Your task to perform on an android device: Open battery settings Image 0: 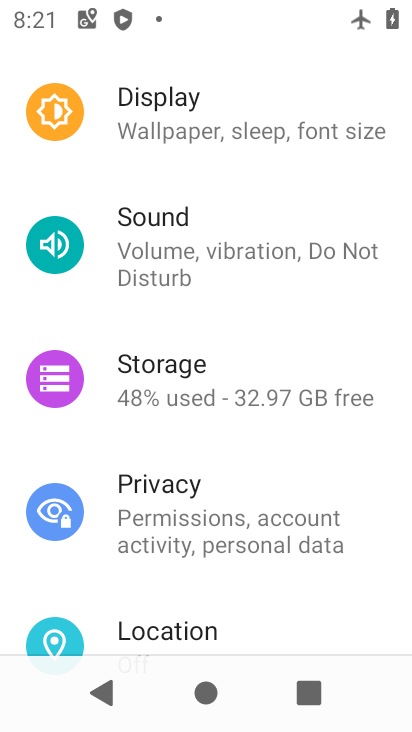
Step 0: drag from (230, 621) to (260, 113)
Your task to perform on an android device: Open battery settings Image 1: 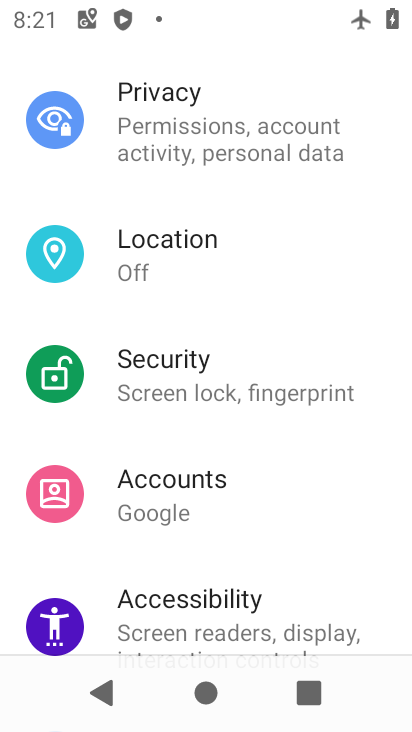
Step 1: drag from (207, 589) to (259, 15)
Your task to perform on an android device: Open battery settings Image 2: 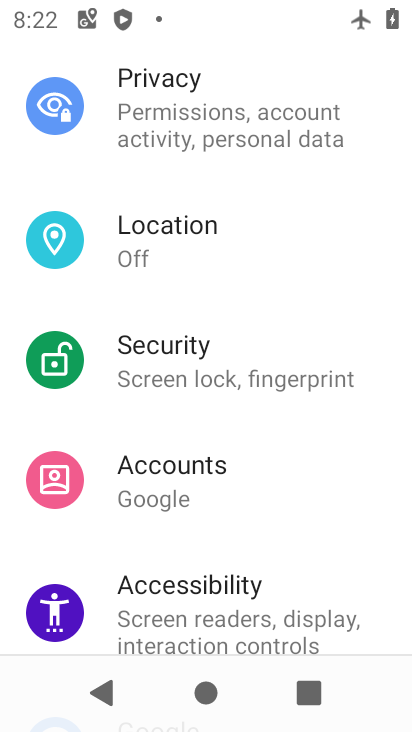
Step 2: drag from (152, 553) to (267, 0)
Your task to perform on an android device: Open battery settings Image 3: 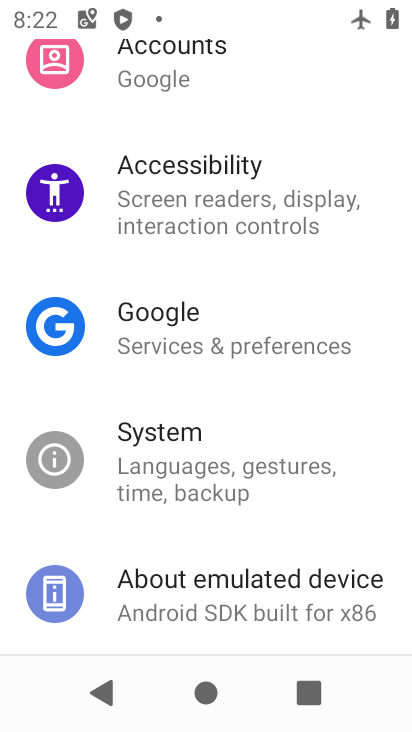
Step 3: drag from (335, 89) to (352, 618)
Your task to perform on an android device: Open battery settings Image 4: 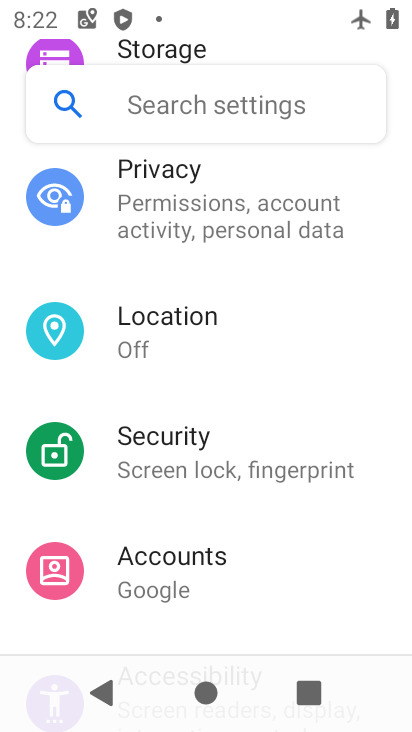
Step 4: drag from (202, 270) to (217, 644)
Your task to perform on an android device: Open battery settings Image 5: 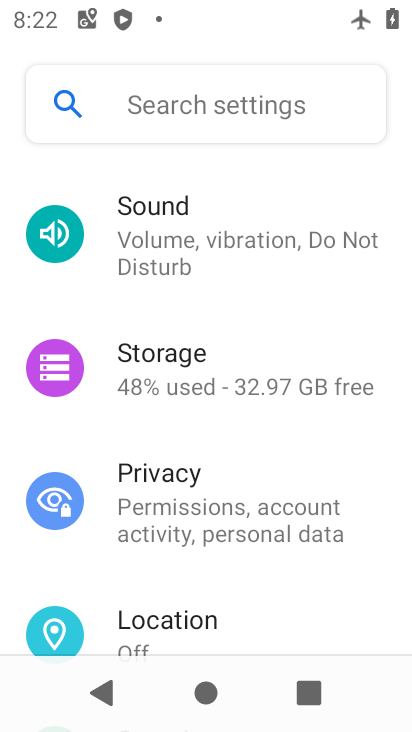
Step 5: drag from (202, 300) to (289, 652)
Your task to perform on an android device: Open battery settings Image 6: 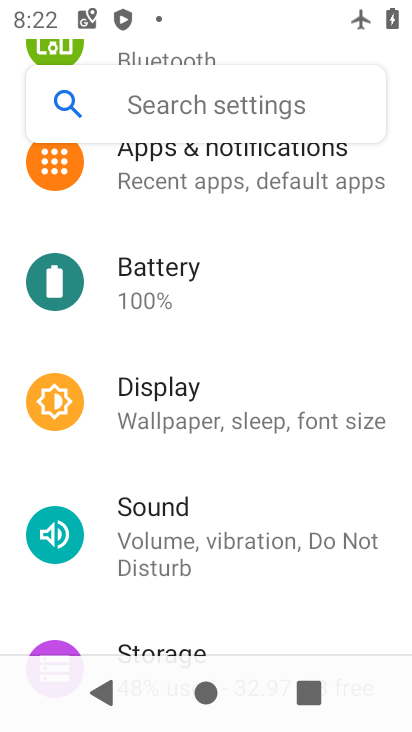
Step 6: click (235, 274)
Your task to perform on an android device: Open battery settings Image 7: 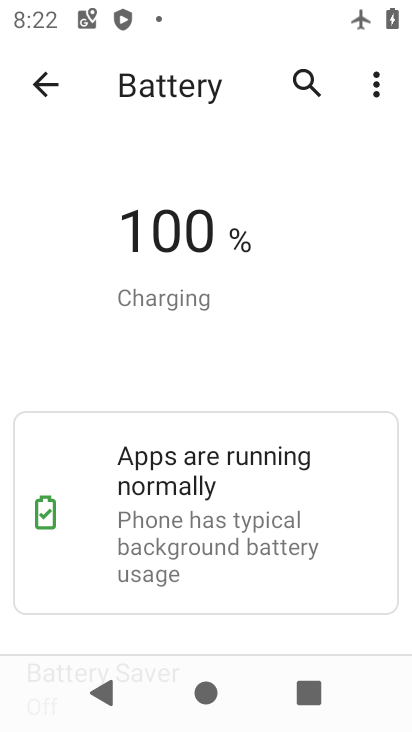
Step 7: task complete